Your task to perform on an android device: What is the news today? Image 0: 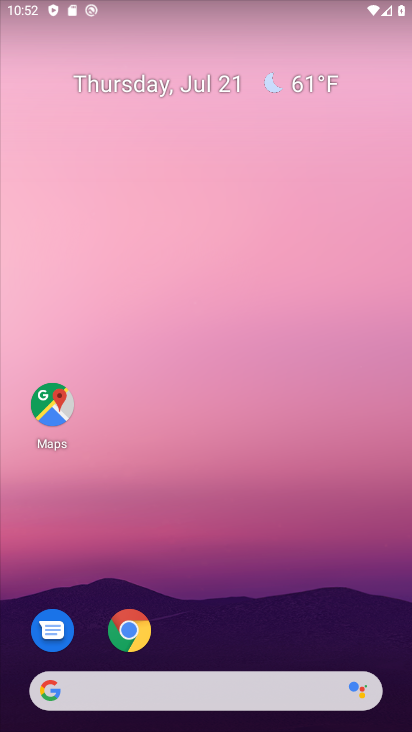
Step 0: drag from (196, 681) to (205, 335)
Your task to perform on an android device: What is the news today? Image 1: 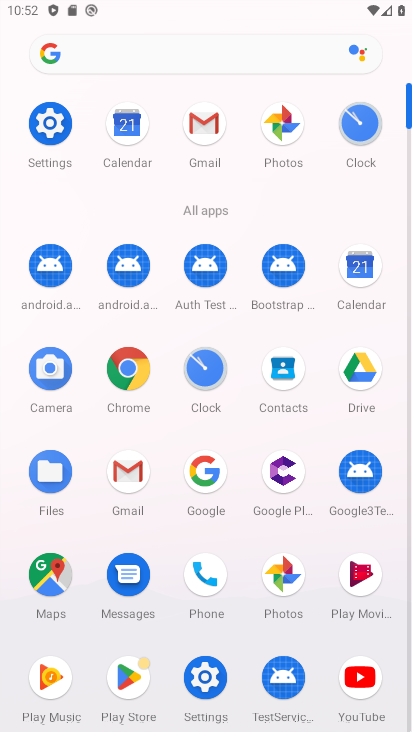
Step 1: click (208, 476)
Your task to perform on an android device: What is the news today? Image 2: 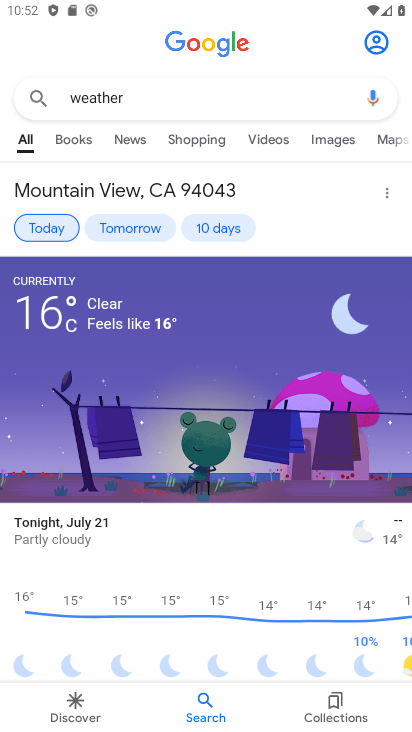
Step 2: click (101, 99)
Your task to perform on an android device: What is the news today? Image 3: 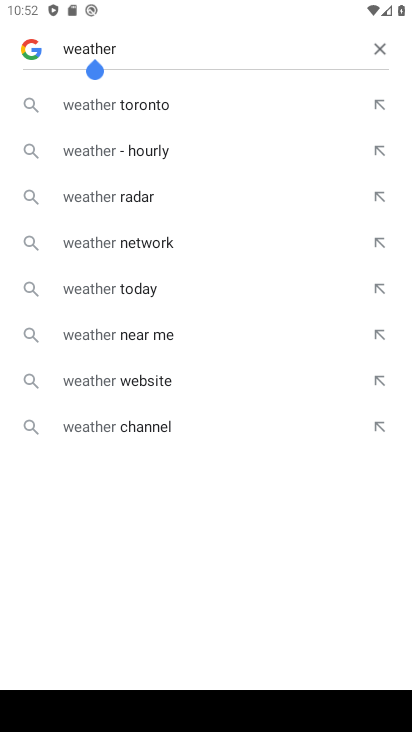
Step 3: click (374, 49)
Your task to perform on an android device: What is the news today? Image 4: 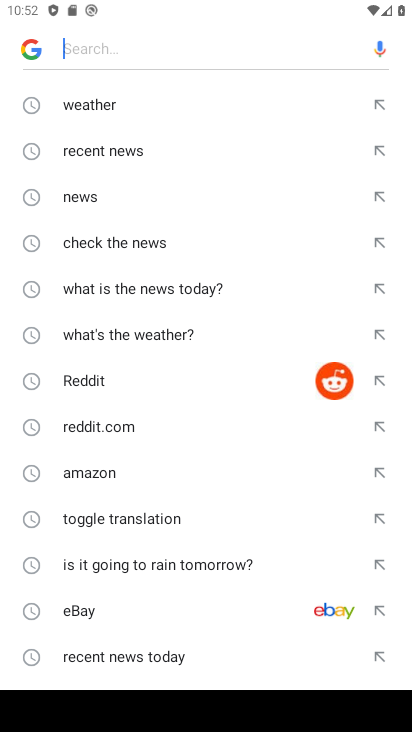
Step 4: click (141, 292)
Your task to perform on an android device: What is the news today? Image 5: 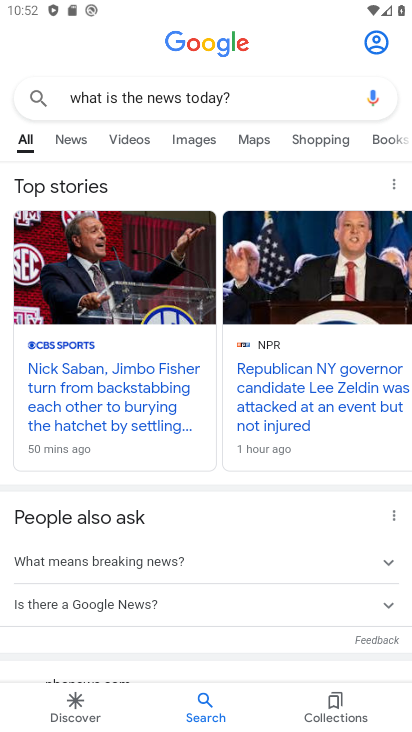
Step 5: task complete